Your task to perform on an android device: check data usage Image 0: 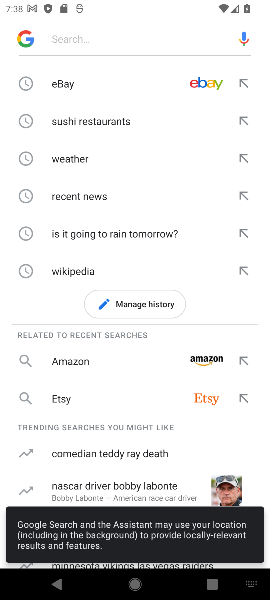
Step 0: press home button
Your task to perform on an android device: check data usage Image 1: 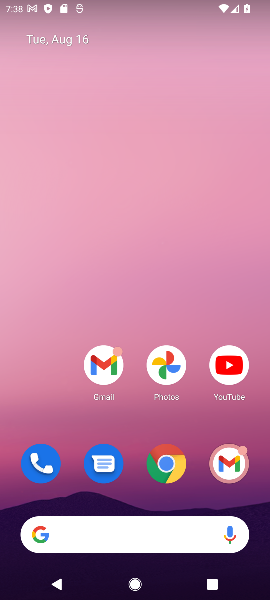
Step 1: drag from (106, 312) to (133, 57)
Your task to perform on an android device: check data usage Image 2: 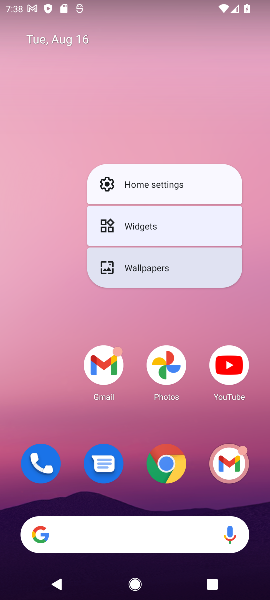
Step 2: drag from (138, 446) to (150, 0)
Your task to perform on an android device: check data usage Image 3: 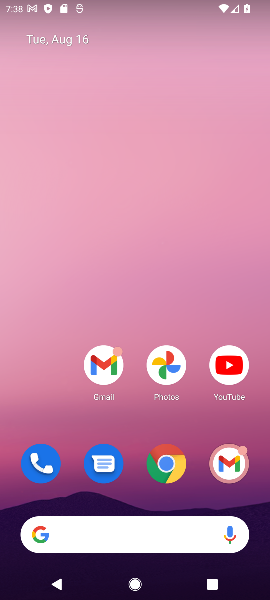
Step 3: drag from (126, 251) to (130, 112)
Your task to perform on an android device: check data usage Image 4: 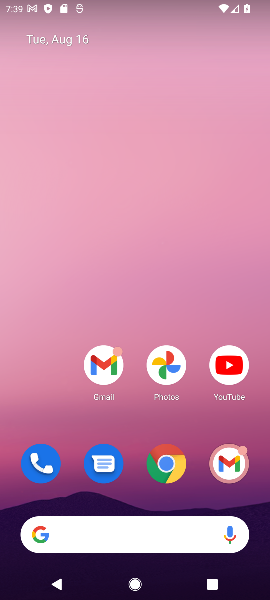
Step 4: drag from (132, 493) to (186, 3)
Your task to perform on an android device: check data usage Image 5: 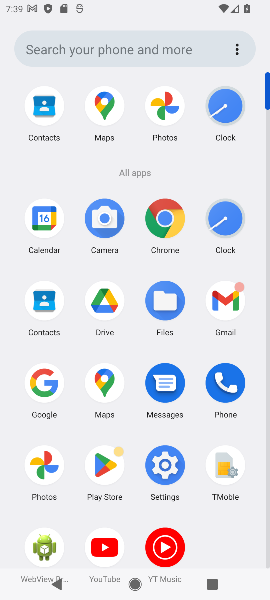
Step 5: click (167, 466)
Your task to perform on an android device: check data usage Image 6: 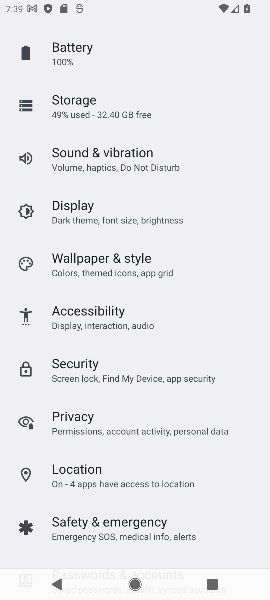
Step 6: drag from (143, 179) to (138, 518)
Your task to perform on an android device: check data usage Image 7: 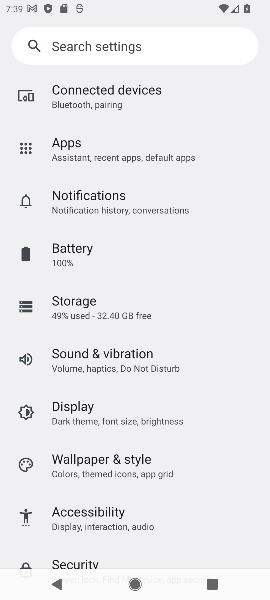
Step 7: drag from (145, 240) to (160, 535)
Your task to perform on an android device: check data usage Image 8: 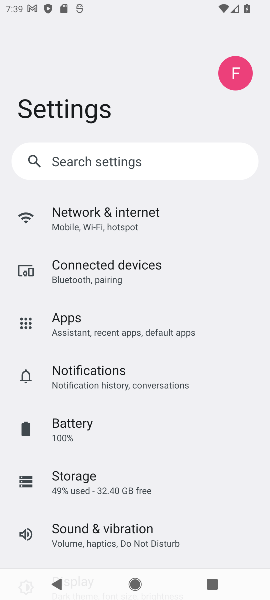
Step 8: click (90, 215)
Your task to perform on an android device: check data usage Image 9: 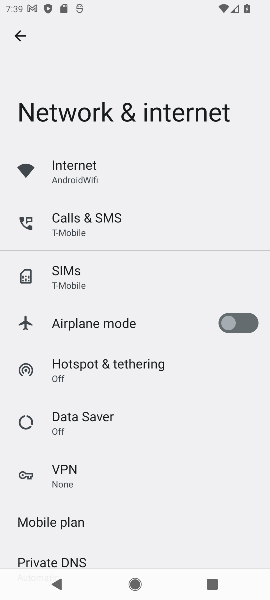
Step 9: click (91, 171)
Your task to perform on an android device: check data usage Image 10: 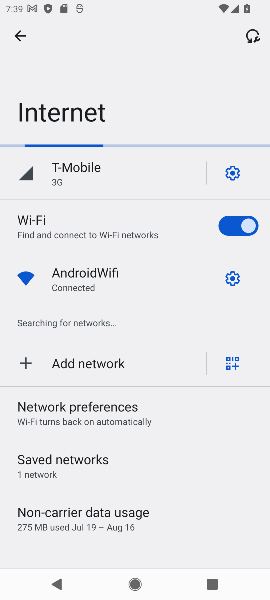
Step 10: click (224, 173)
Your task to perform on an android device: check data usage Image 11: 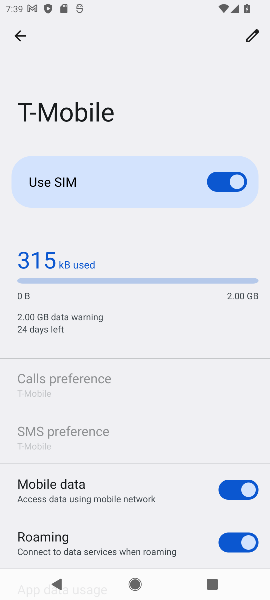
Step 11: drag from (113, 473) to (138, 285)
Your task to perform on an android device: check data usage Image 12: 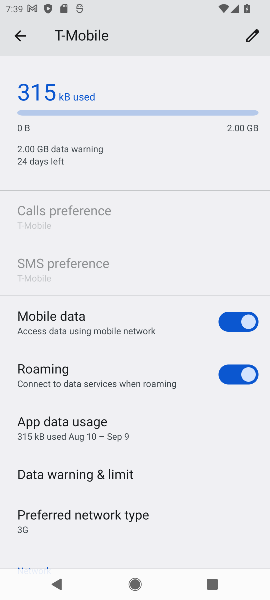
Step 12: click (66, 430)
Your task to perform on an android device: check data usage Image 13: 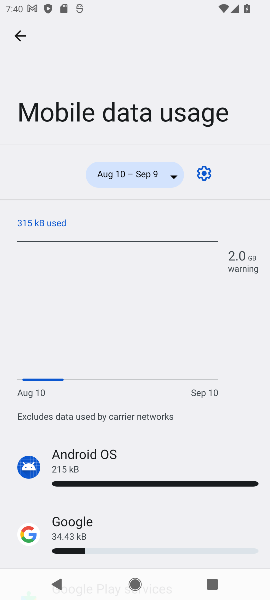
Step 13: task complete